Your task to perform on an android device: open chrome privacy settings Image 0: 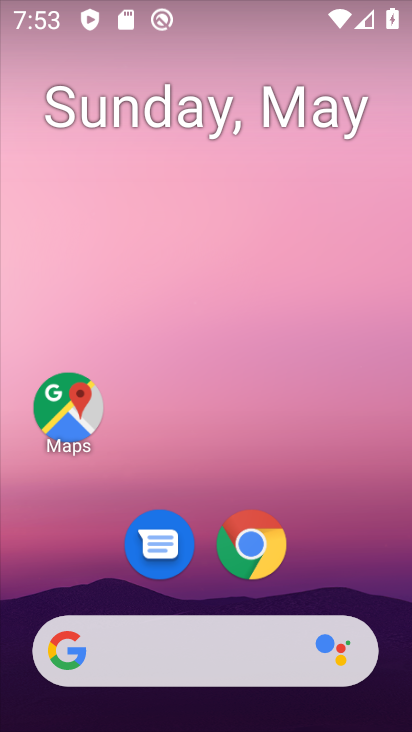
Step 0: drag from (324, 396) to (276, 41)
Your task to perform on an android device: open chrome privacy settings Image 1: 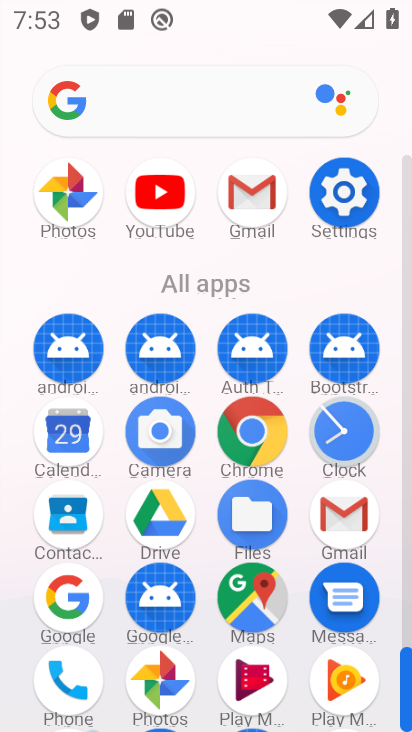
Step 1: drag from (9, 604) to (18, 305)
Your task to perform on an android device: open chrome privacy settings Image 2: 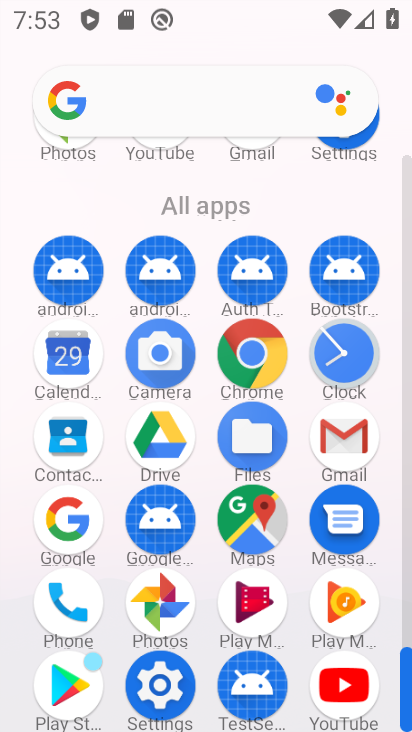
Step 2: click (246, 348)
Your task to perform on an android device: open chrome privacy settings Image 3: 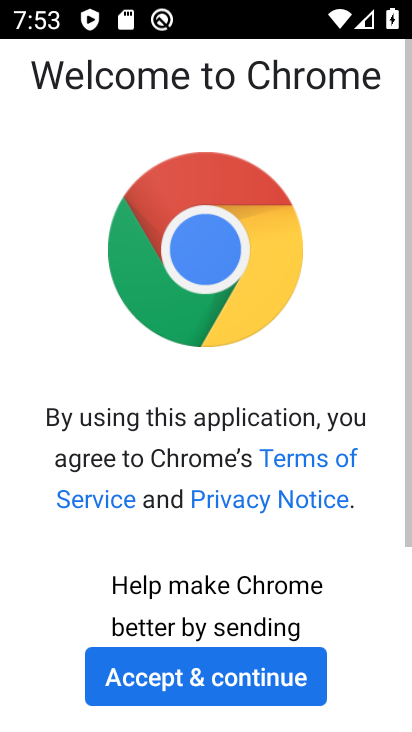
Step 3: click (155, 683)
Your task to perform on an android device: open chrome privacy settings Image 4: 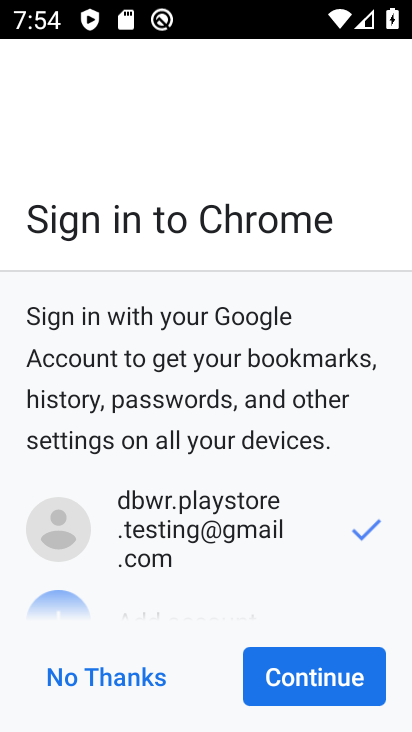
Step 4: click (316, 679)
Your task to perform on an android device: open chrome privacy settings Image 5: 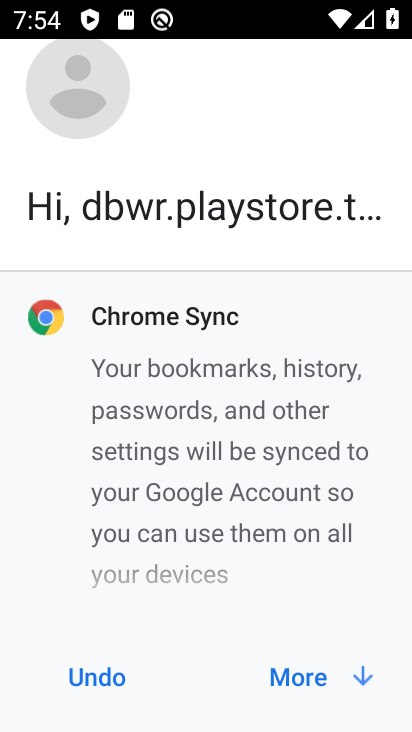
Step 5: click (316, 679)
Your task to perform on an android device: open chrome privacy settings Image 6: 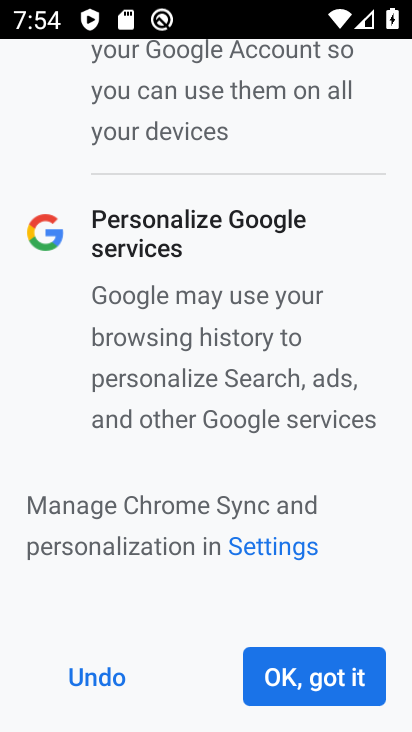
Step 6: click (316, 679)
Your task to perform on an android device: open chrome privacy settings Image 7: 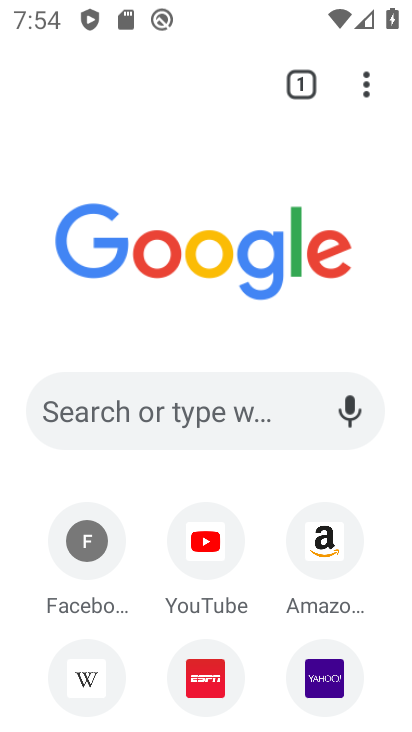
Step 7: drag from (370, 87) to (111, 592)
Your task to perform on an android device: open chrome privacy settings Image 8: 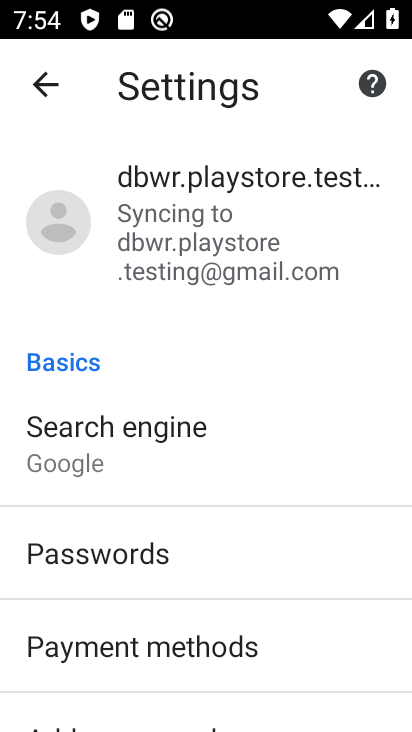
Step 8: drag from (247, 566) to (285, 139)
Your task to perform on an android device: open chrome privacy settings Image 9: 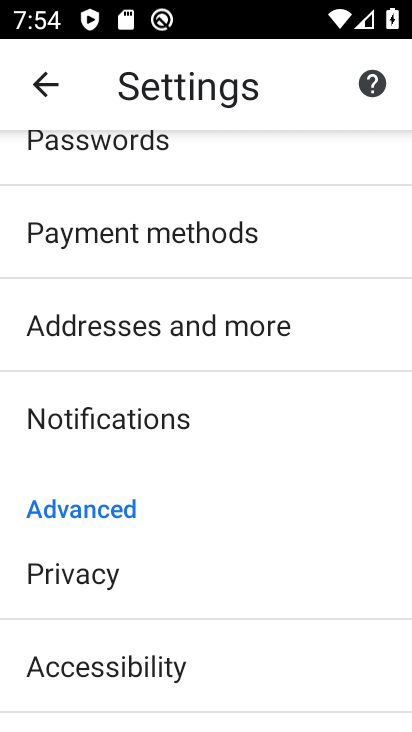
Step 9: click (128, 579)
Your task to perform on an android device: open chrome privacy settings Image 10: 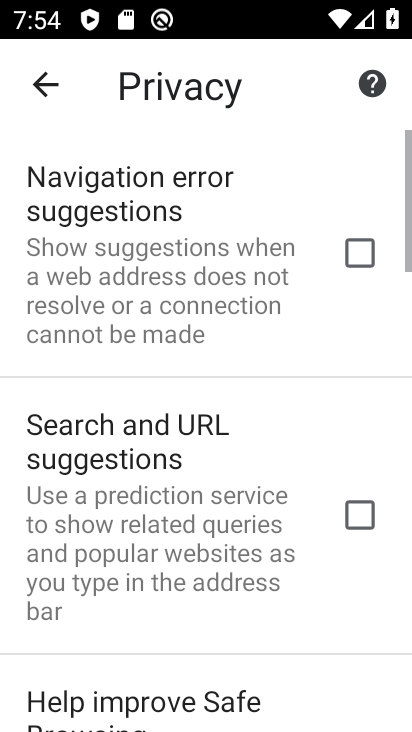
Step 10: task complete